Your task to perform on an android device: open a bookmark in the chrome app Image 0: 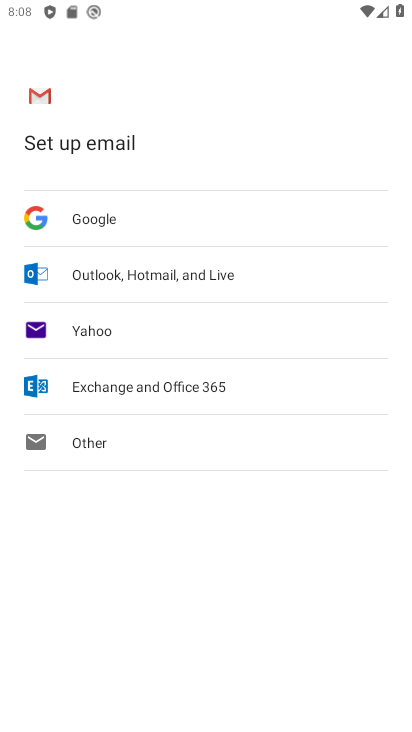
Step 0: press home button
Your task to perform on an android device: open a bookmark in the chrome app Image 1: 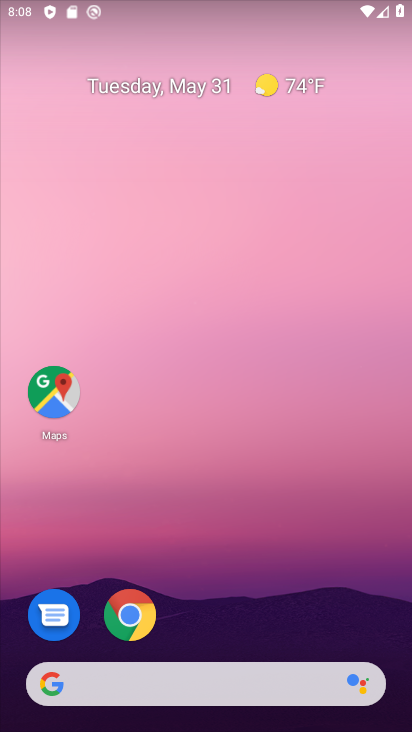
Step 1: click (119, 601)
Your task to perform on an android device: open a bookmark in the chrome app Image 2: 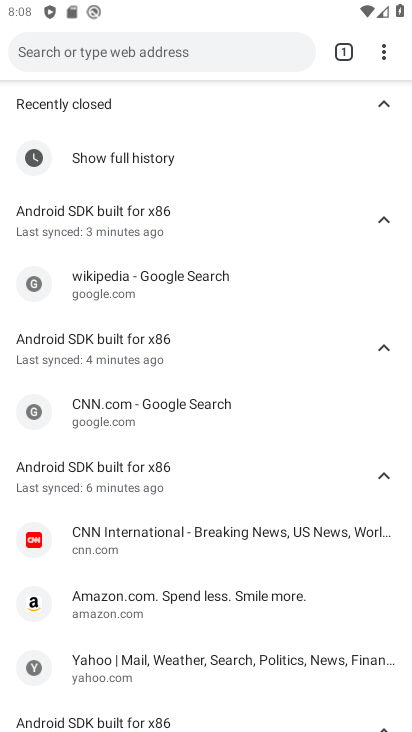
Step 2: drag from (377, 59) to (250, 202)
Your task to perform on an android device: open a bookmark in the chrome app Image 3: 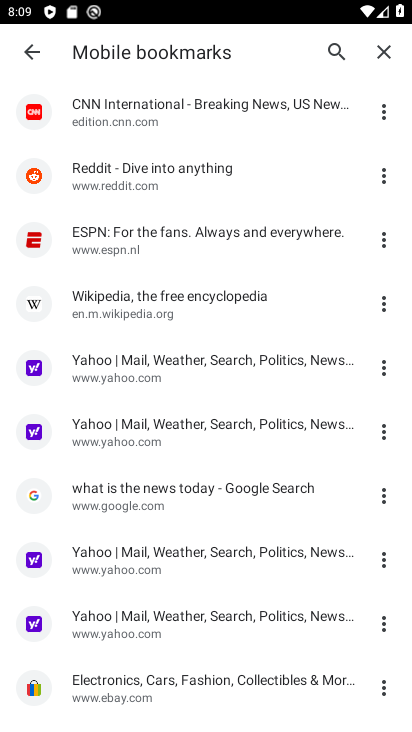
Step 3: click (143, 226)
Your task to perform on an android device: open a bookmark in the chrome app Image 4: 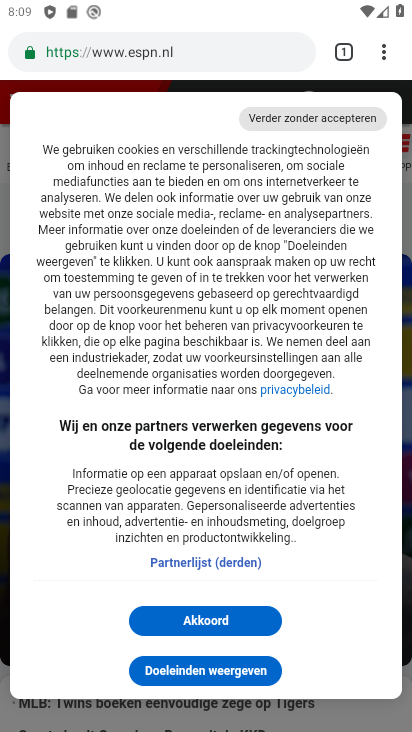
Step 4: click (209, 613)
Your task to perform on an android device: open a bookmark in the chrome app Image 5: 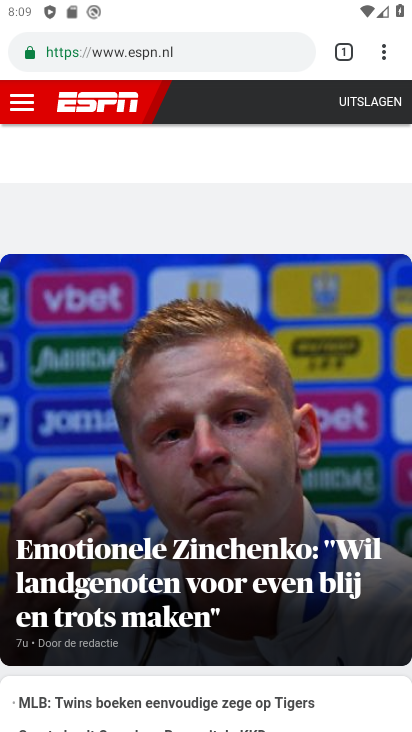
Step 5: task complete